Your task to perform on an android device: check battery use Image 0: 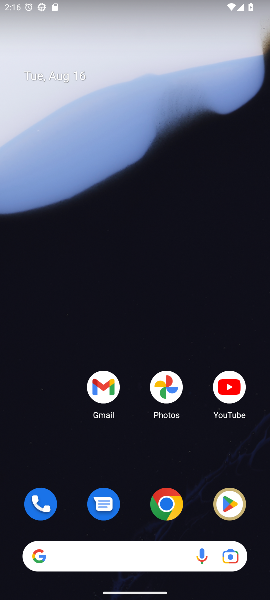
Step 0: drag from (127, 477) to (144, 119)
Your task to perform on an android device: check battery use Image 1: 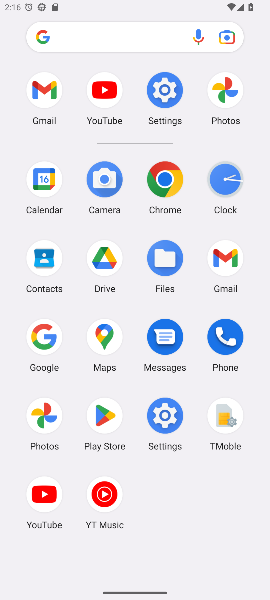
Step 1: click (162, 414)
Your task to perform on an android device: check battery use Image 2: 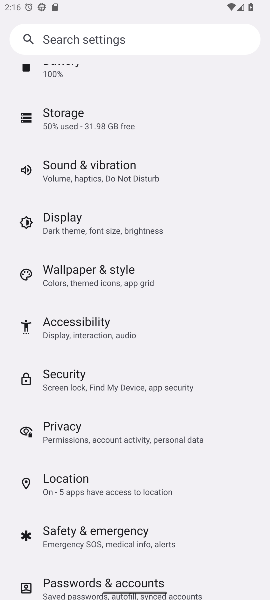
Step 2: drag from (160, 97) to (88, 465)
Your task to perform on an android device: check battery use Image 3: 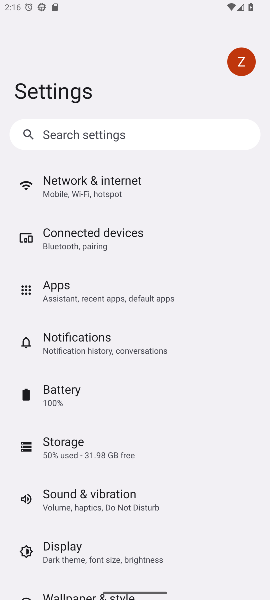
Step 3: click (64, 382)
Your task to perform on an android device: check battery use Image 4: 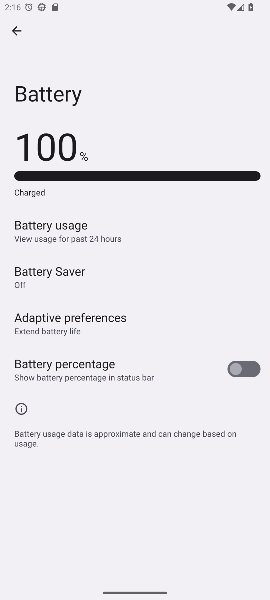
Step 4: task complete